Your task to perform on an android device: open chrome and create a bookmark for the current page Image 0: 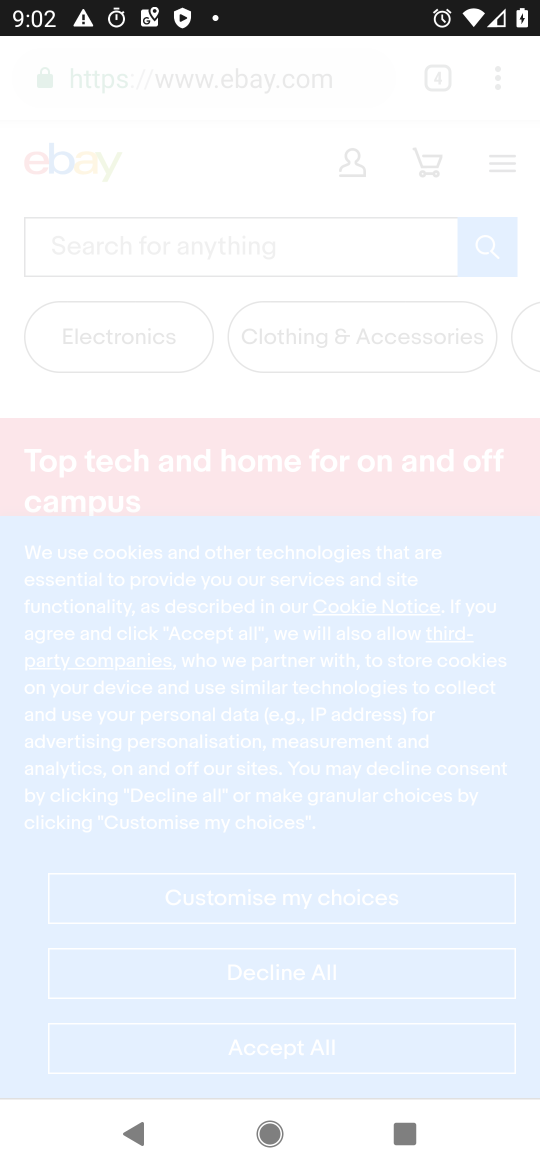
Step 0: task complete